Your task to perform on an android device: turn on notifications settings in the gmail app Image 0: 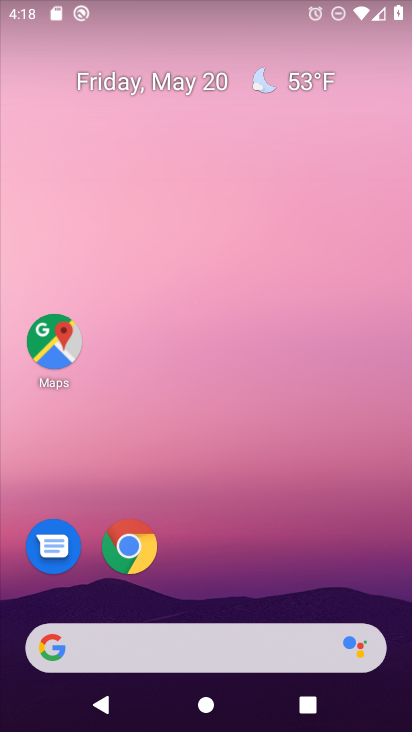
Step 0: drag from (270, 546) to (126, 26)
Your task to perform on an android device: turn on notifications settings in the gmail app Image 1: 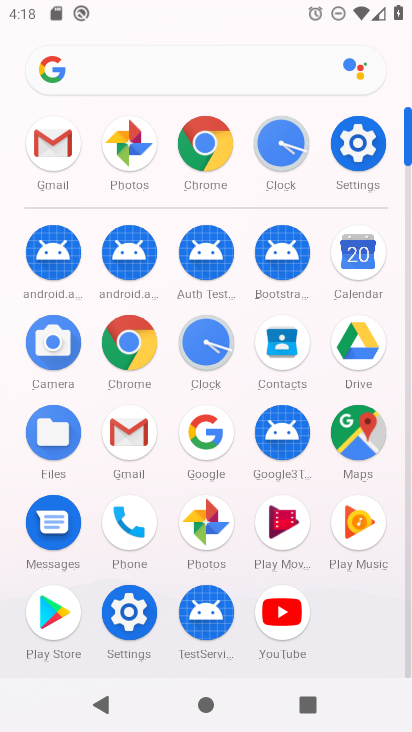
Step 1: click (70, 139)
Your task to perform on an android device: turn on notifications settings in the gmail app Image 2: 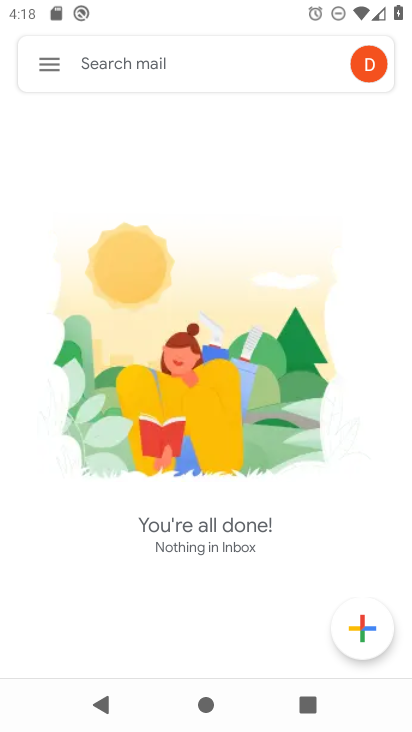
Step 2: click (49, 68)
Your task to perform on an android device: turn on notifications settings in the gmail app Image 3: 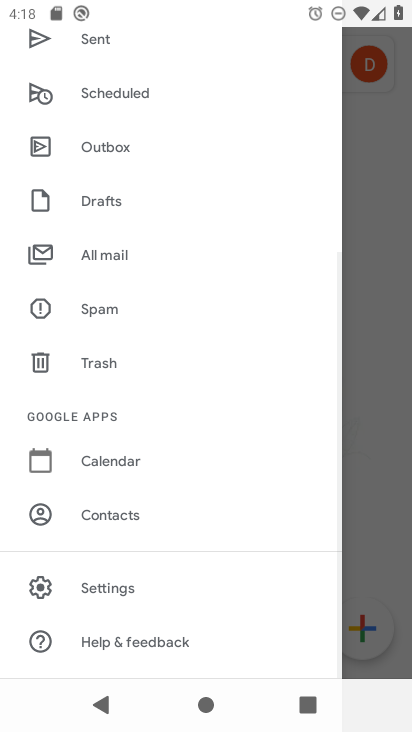
Step 3: click (136, 597)
Your task to perform on an android device: turn on notifications settings in the gmail app Image 4: 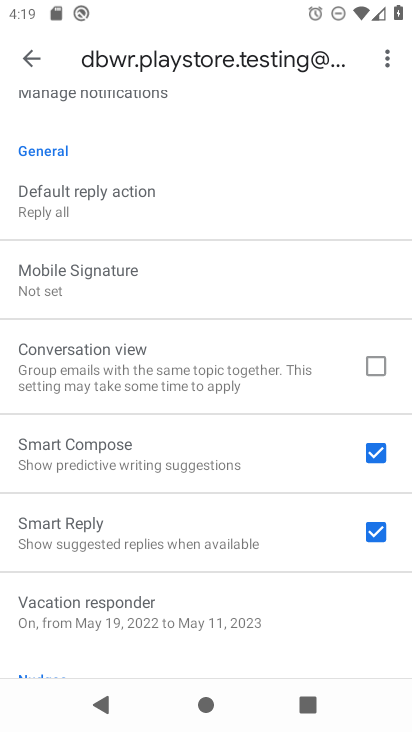
Step 4: drag from (164, 215) to (139, 621)
Your task to perform on an android device: turn on notifications settings in the gmail app Image 5: 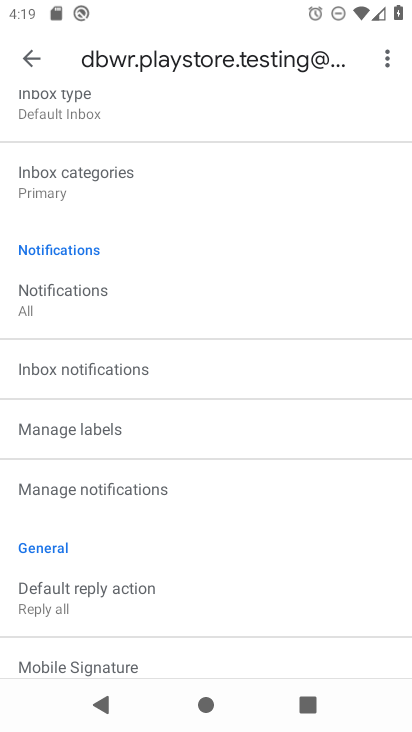
Step 5: click (132, 501)
Your task to perform on an android device: turn on notifications settings in the gmail app Image 6: 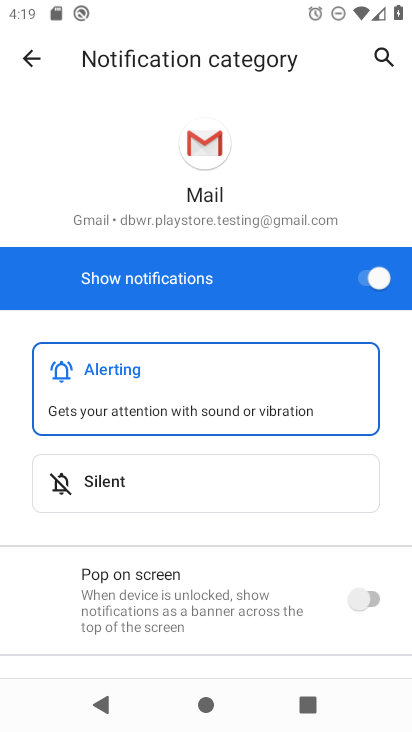
Step 6: task complete